Your task to perform on an android device: Go to sound settings Image 0: 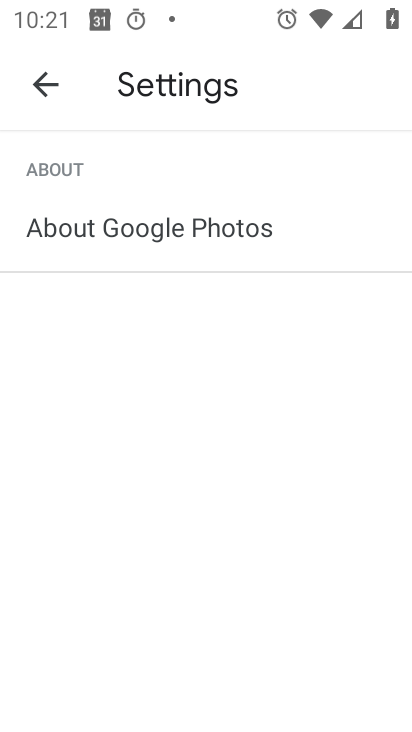
Step 0: press home button
Your task to perform on an android device: Go to sound settings Image 1: 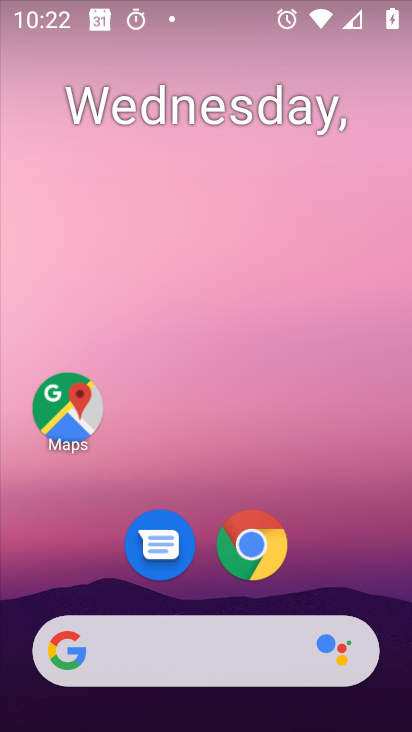
Step 1: drag from (188, 651) to (284, 160)
Your task to perform on an android device: Go to sound settings Image 2: 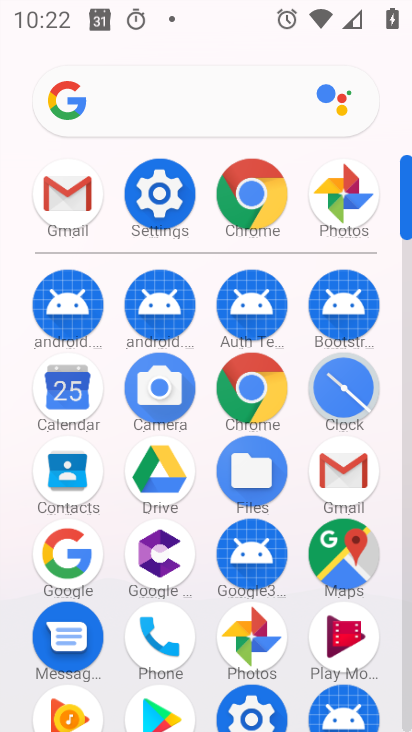
Step 2: click (153, 204)
Your task to perform on an android device: Go to sound settings Image 3: 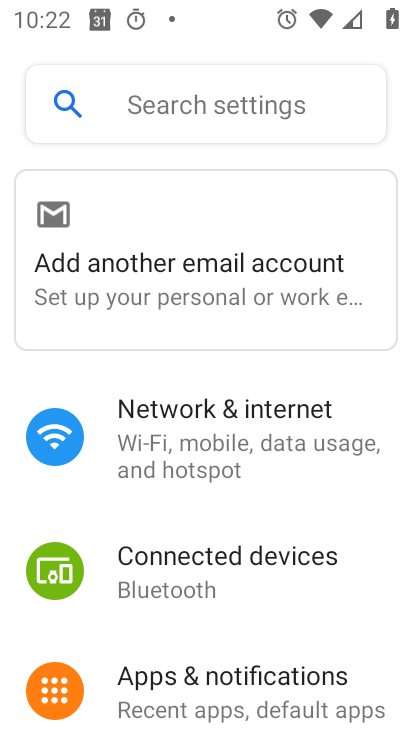
Step 3: drag from (237, 642) to (335, 174)
Your task to perform on an android device: Go to sound settings Image 4: 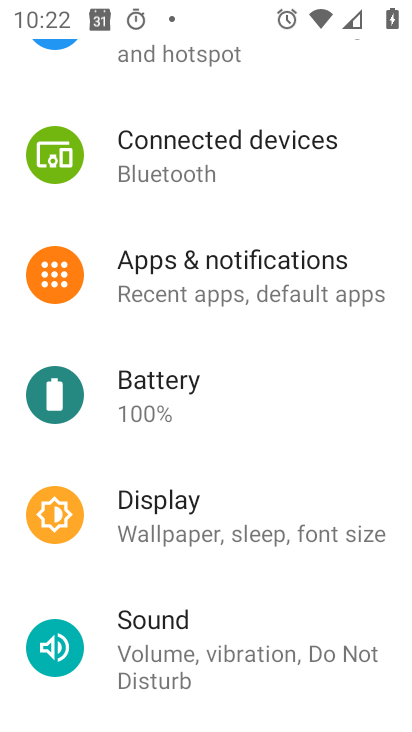
Step 4: click (180, 634)
Your task to perform on an android device: Go to sound settings Image 5: 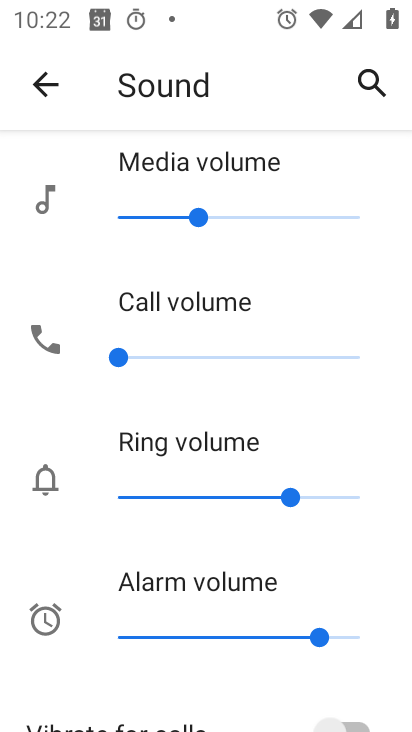
Step 5: task complete